Your task to perform on an android device: open device folders in google photos Image 0: 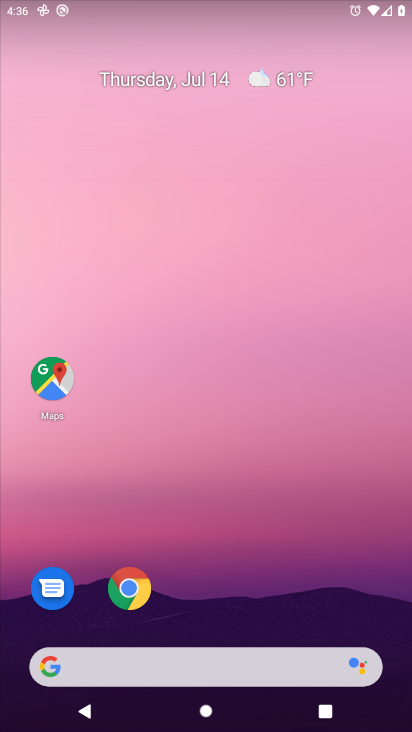
Step 0: press home button
Your task to perform on an android device: open device folders in google photos Image 1: 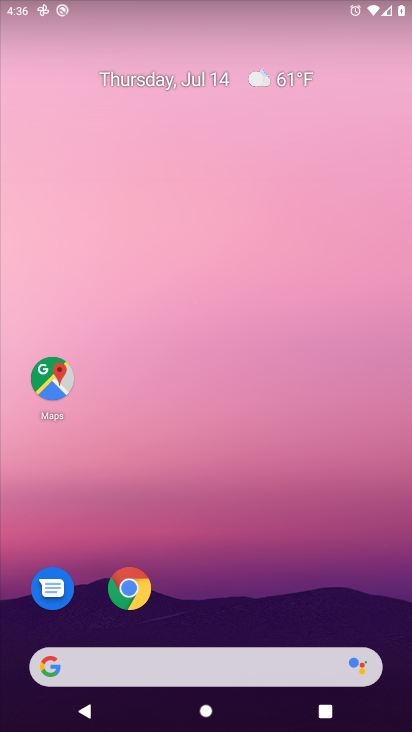
Step 1: drag from (257, 615) to (224, 185)
Your task to perform on an android device: open device folders in google photos Image 2: 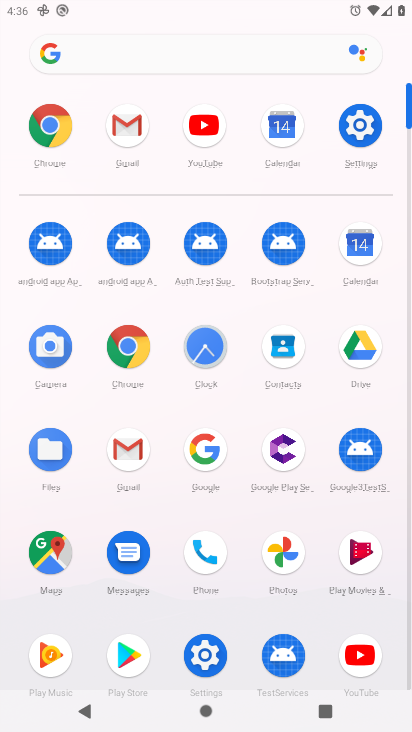
Step 2: click (282, 551)
Your task to perform on an android device: open device folders in google photos Image 3: 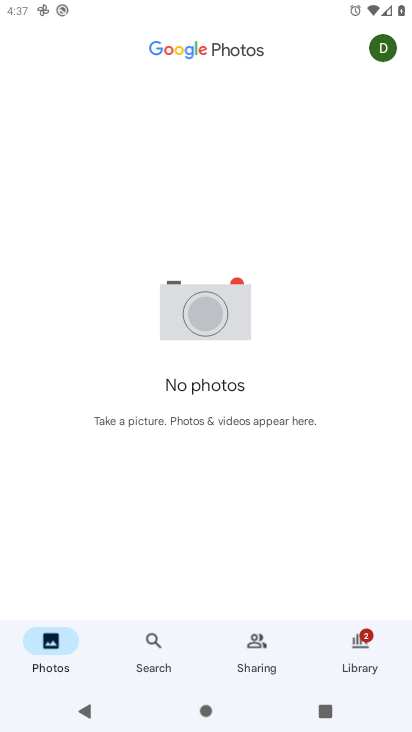
Step 3: click (368, 645)
Your task to perform on an android device: open device folders in google photos Image 4: 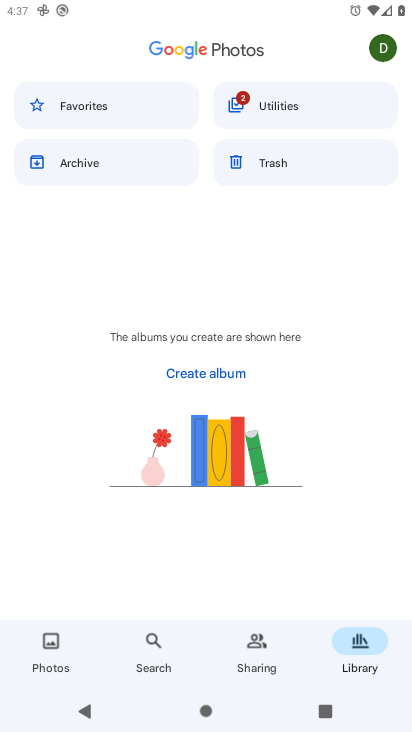
Step 4: click (381, 56)
Your task to perform on an android device: open device folders in google photos Image 5: 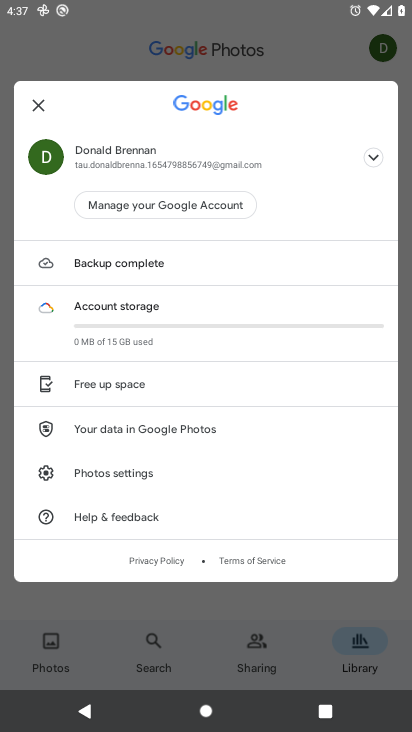
Step 5: click (304, 618)
Your task to perform on an android device: open device folders in google photos Image 6: 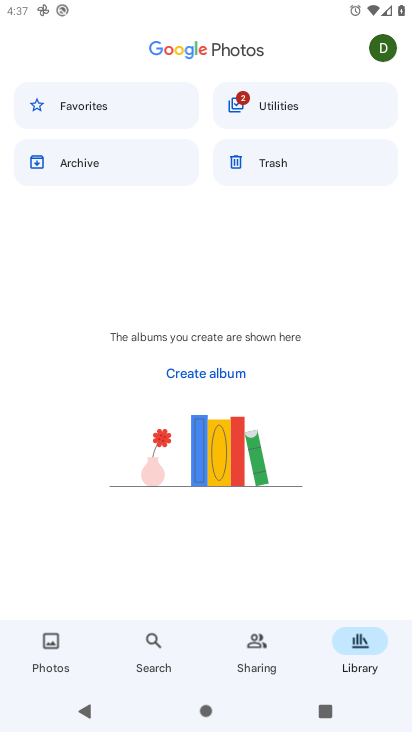
Step 6: task complete